Your task to perform on an android device: toggle notifications settings in the gmail app Image 0: 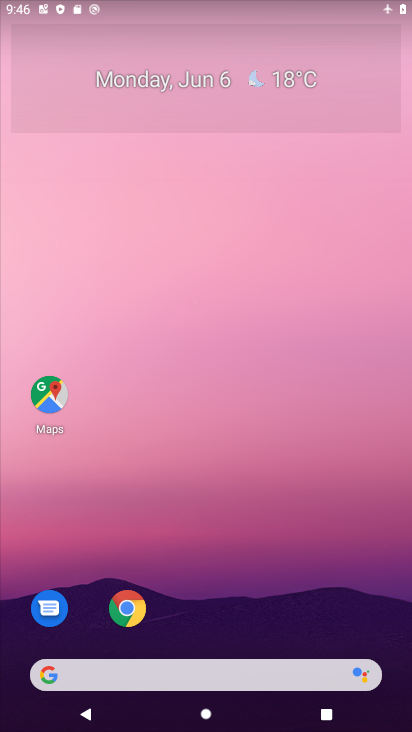
Step 0: drag from (277, 595) to (255, 30)
Your task to perform on an android device: toggle notifications settings in the gmail app Image 1: 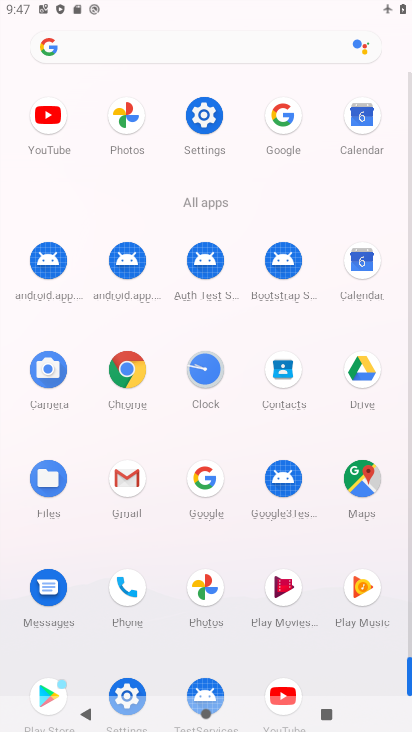
Step 1: click (126, 479)
Your task to perform on an android device: toggle notifications settings in the gmail app Image 2: 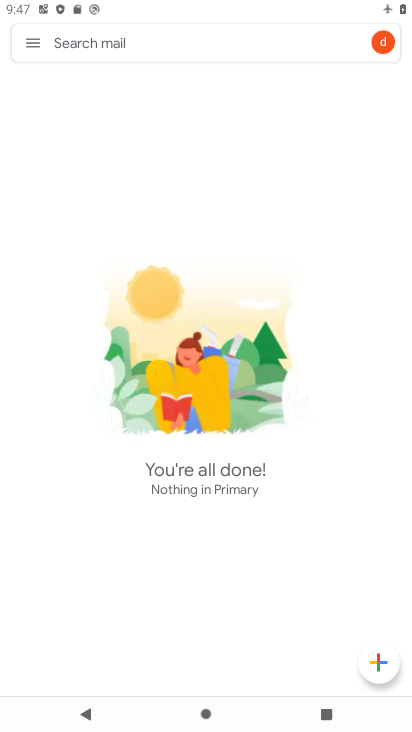
Step 2: click (33, 42)
Your task to perform on an android device: toggle notifications settings in the gmail app Image 3: 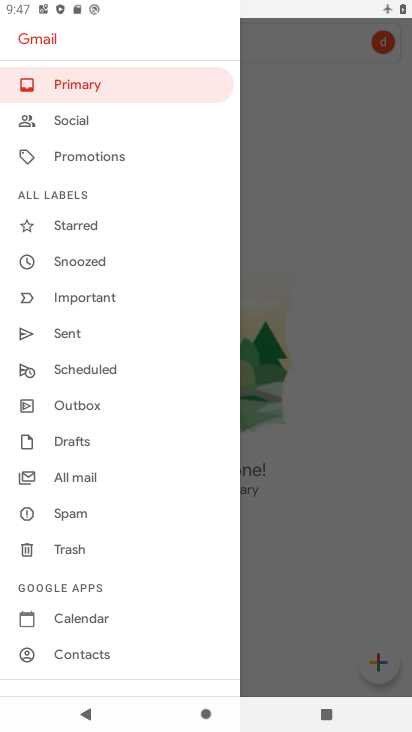
Step 3: drag from (87, 462) to (107, 355)
Your task to perform on an android device: toggle notifications settings in the gmail app Image 4: 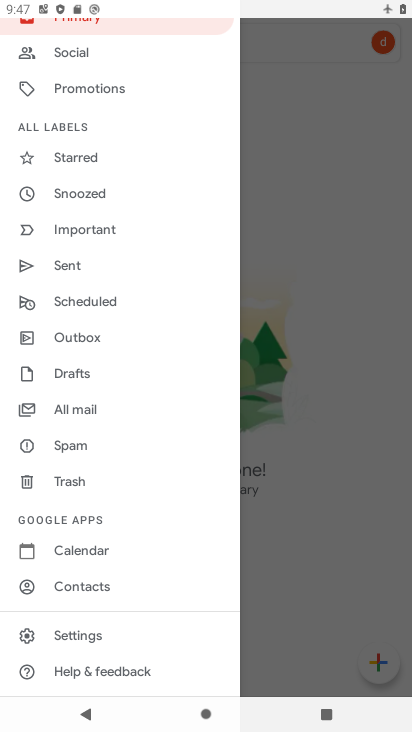
Step 4: click (90, 634)
Your task to perform on an android device: toggle notifications settings in the gmail app Image 5: 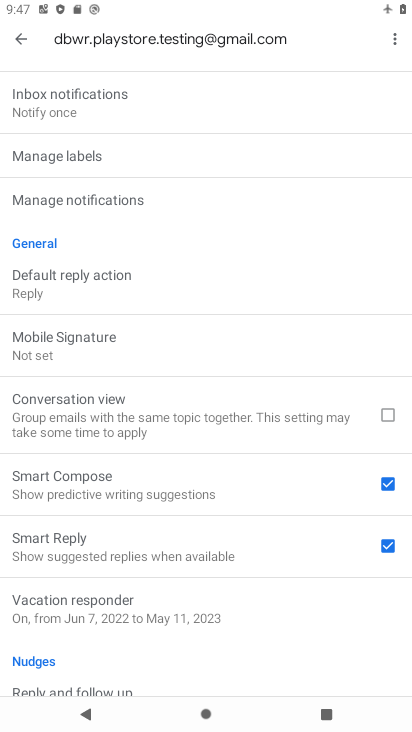
Step 5: click (97, 194)
Your task to perform on an android device: toggle notifications settings in the gmail app Image 6: 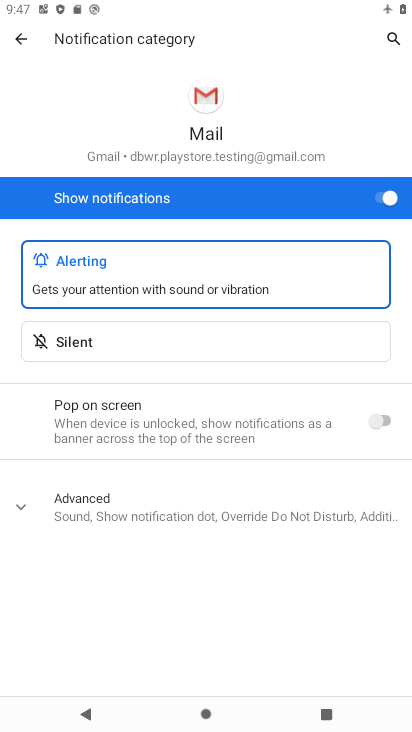
Step 6: click (372, 199)
Your task to perform on an android device: toggle notifications settings in the gmail app Image 7: 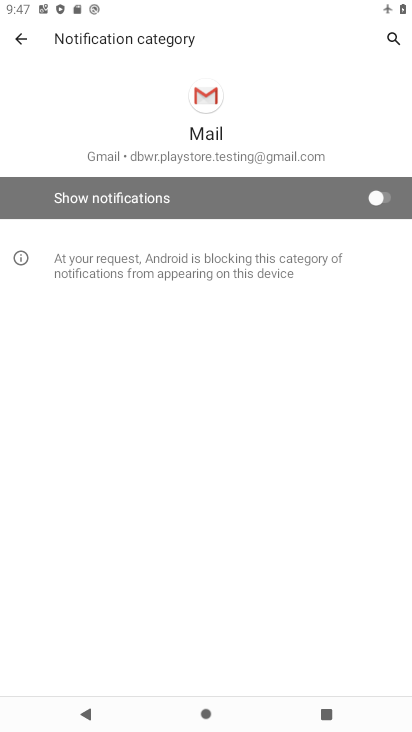
Step 7: task complete